Your task to perform on an android device: Open display settings Image 0: 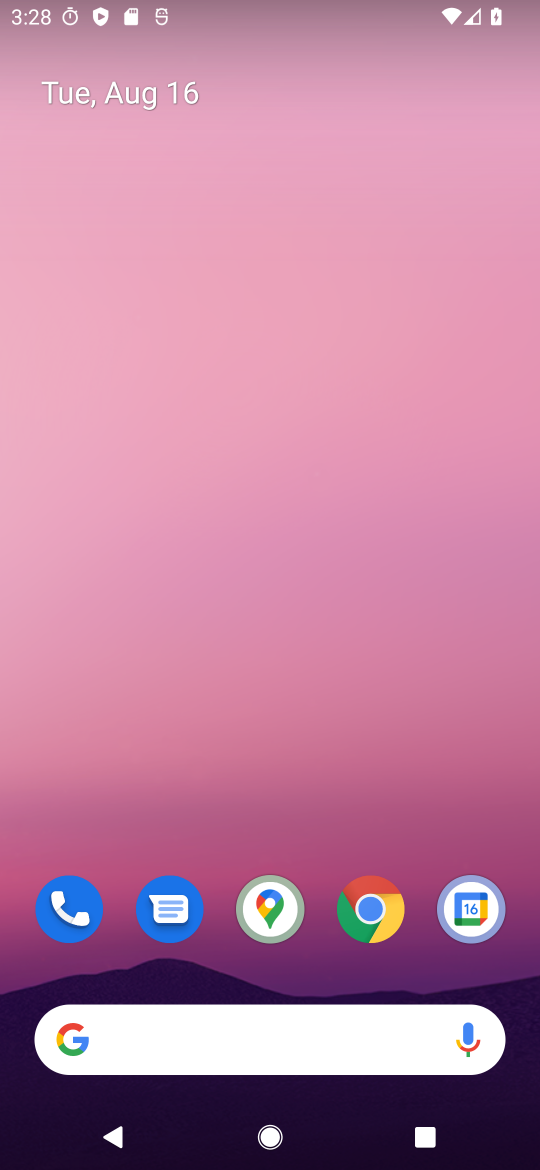
Step 0: drag from (270, 859) to (273, 188)
Your task to perform on an android device: Open display settings Image 1: 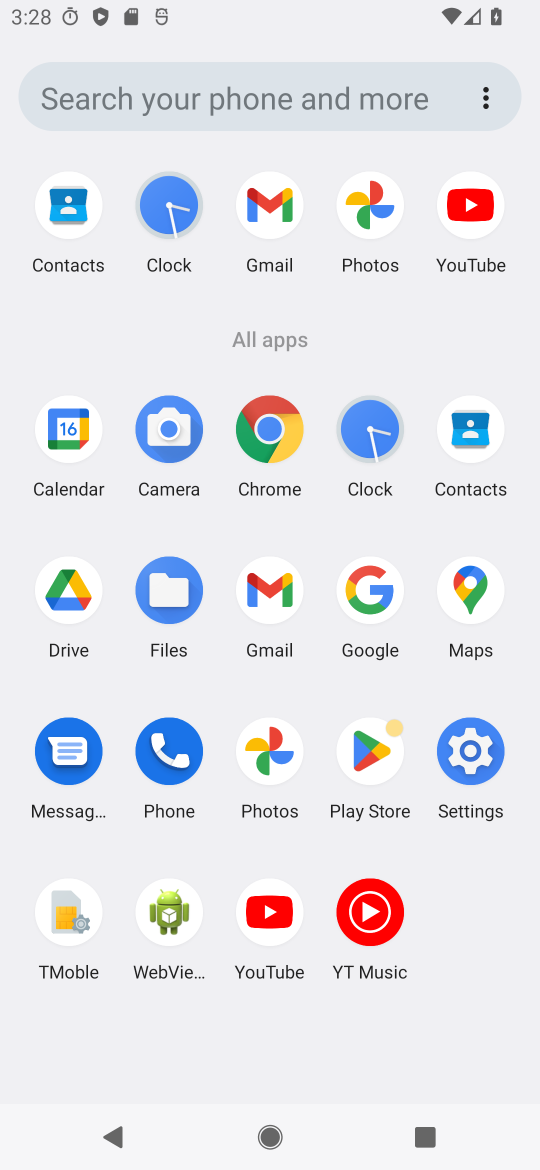
Step 1: click (474, 751)
Your task to perform on an android device: Open display settings Image 2: 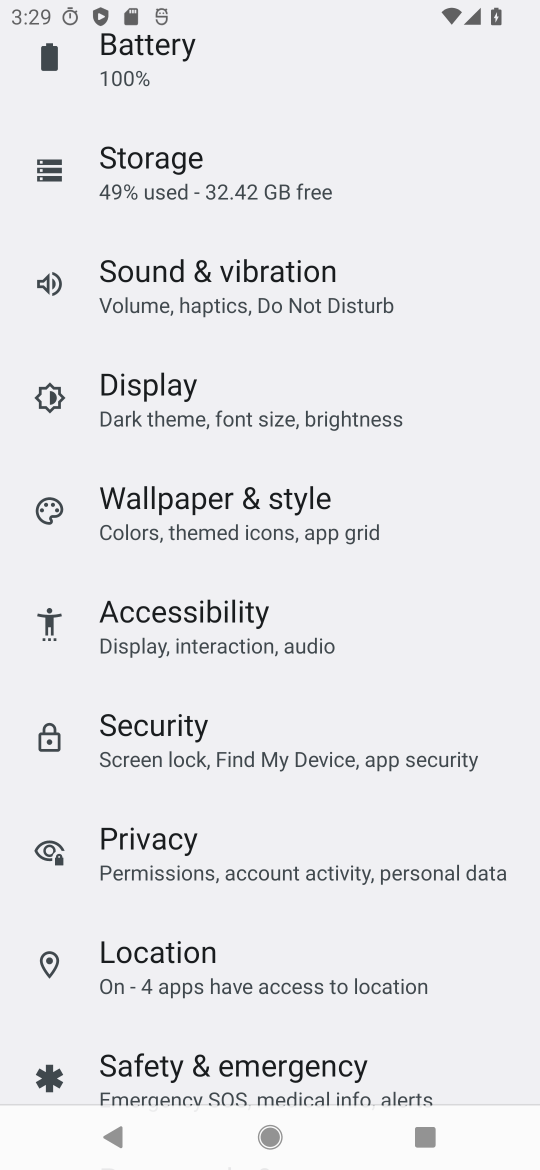
Step 2: click (161, 402)
Your task to perform on an android device: Open display settings Image 3: 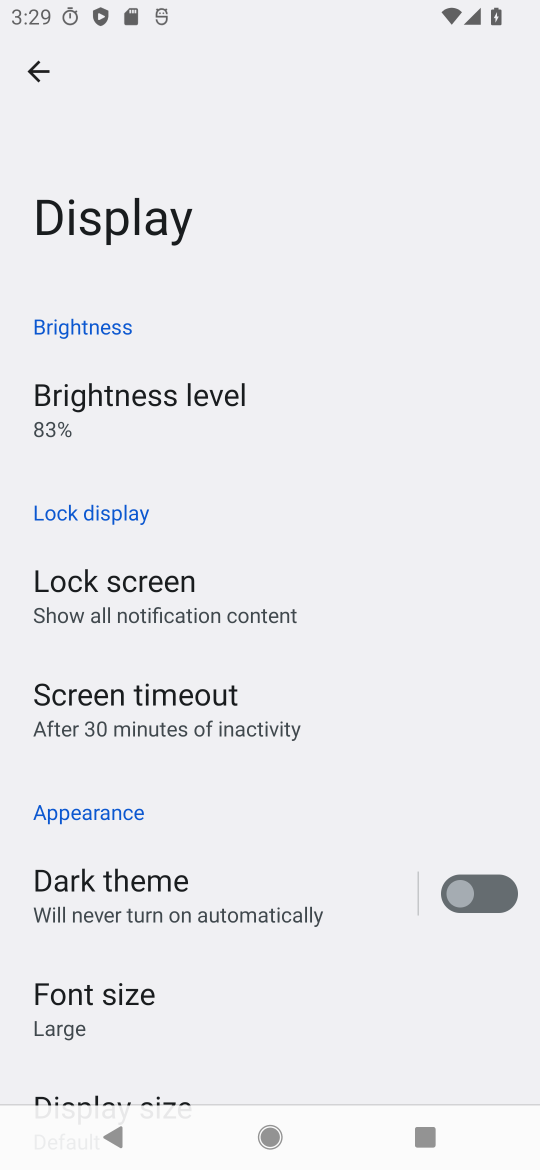
Step 3: task complete